Your task to perform on an android device: Open CNN.com Image 0: 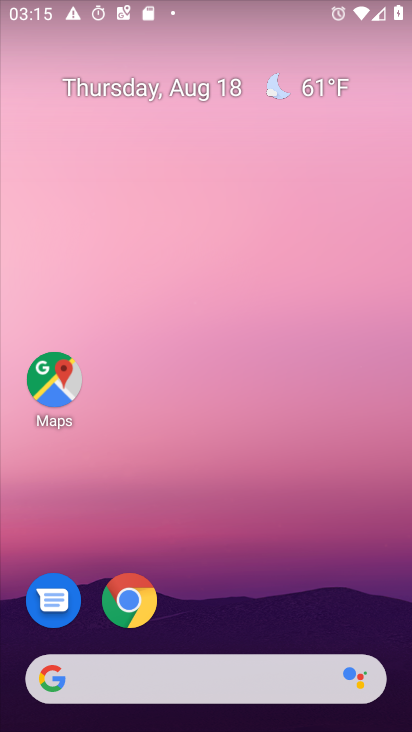
Step 0: click (53, 683)
Your task to perform on an android device: Open CNN.com Image 1: 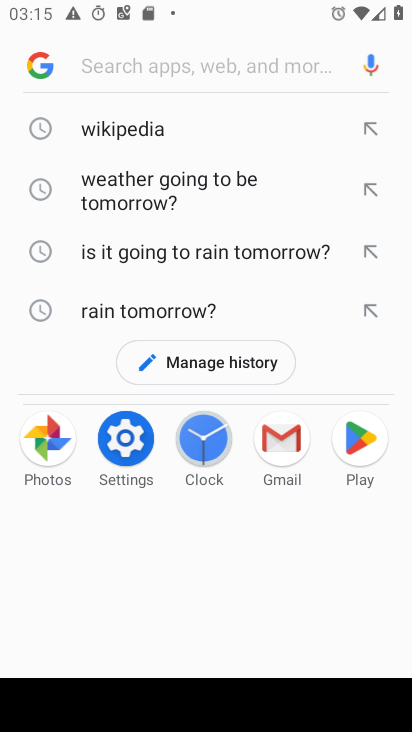
Step 1: type "CNN.com"
Your task to perform on an android device: Open CNN.com Image 2: 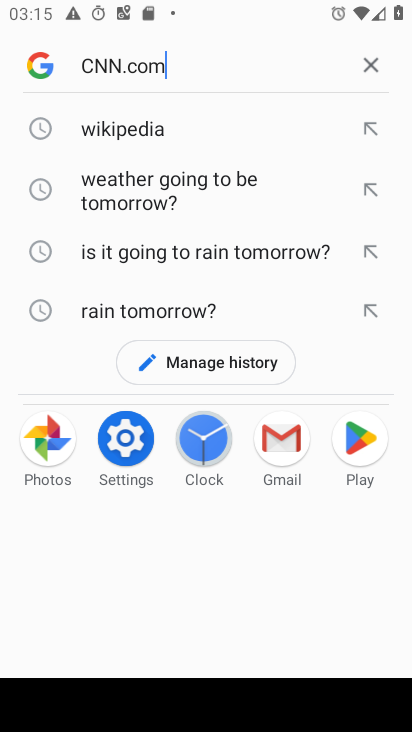
Step 2: press enter
Your task to perform on an android device: Open CNN.com Image 3: 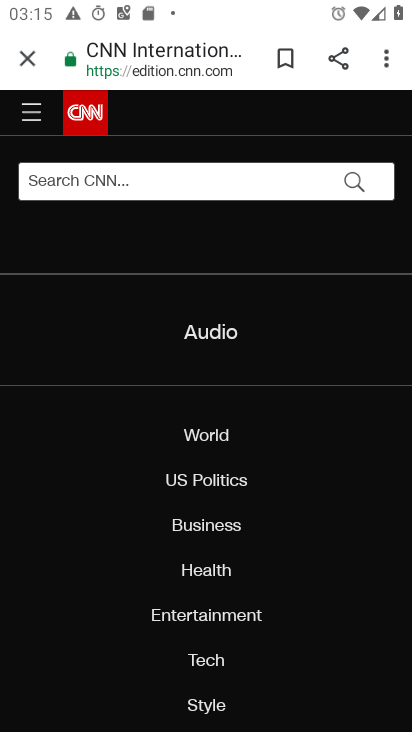
Step 3: task complete